Your task to perform on an android device: Go to location settings Image 0: 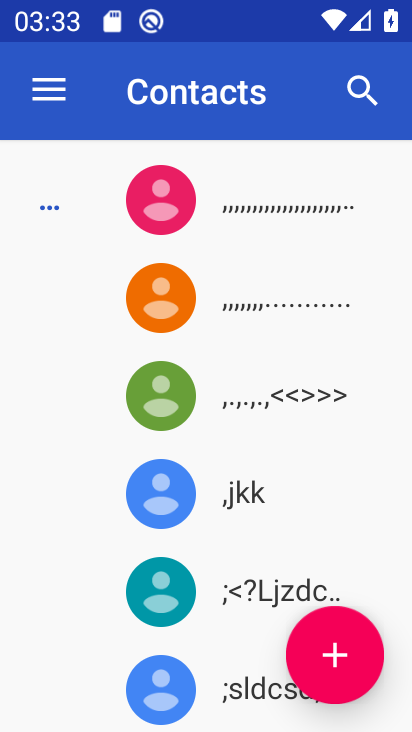
Step 0: press home button
Your task to perform on an android device: Go to location settings Image 1: 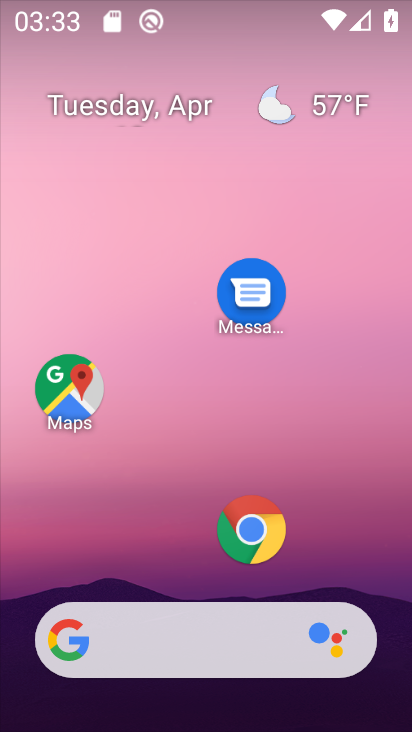
Step 1: drag from (182, 514) to (194, 78)
Your task to perform on an android device: Go to location settings Image 2: 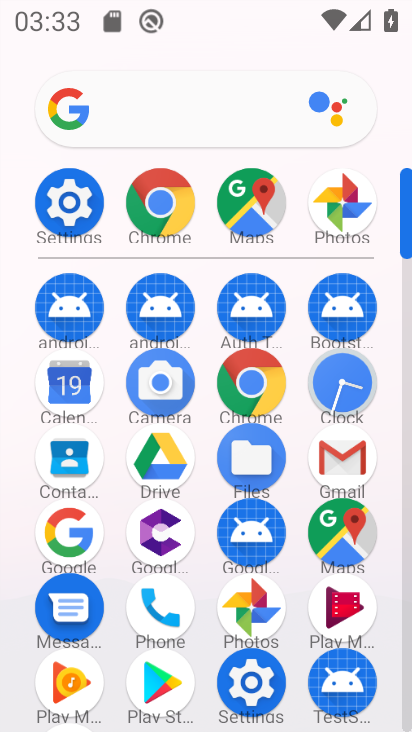
Step 2: click (72, 206)
Your task to perform on an android device: Go to location settings Image 3: 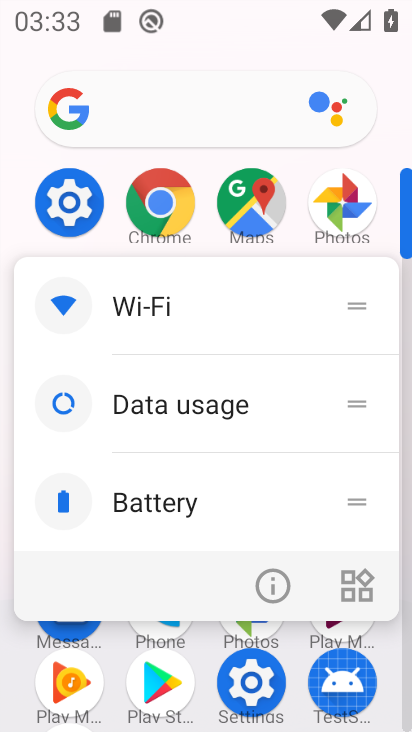
Step 3: click (72, 206)
Your task to perform on an android device: Go to location settings Image 4: 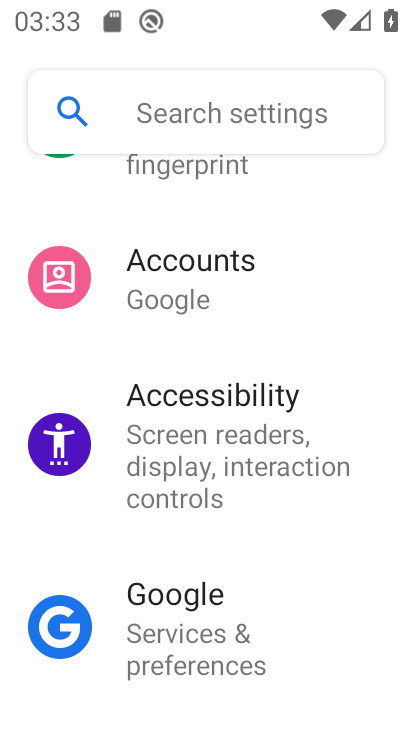
Step 4: drag from (292, 569) to (260, 84)
Your task to perform on an android device: Go to location settings Image 5: 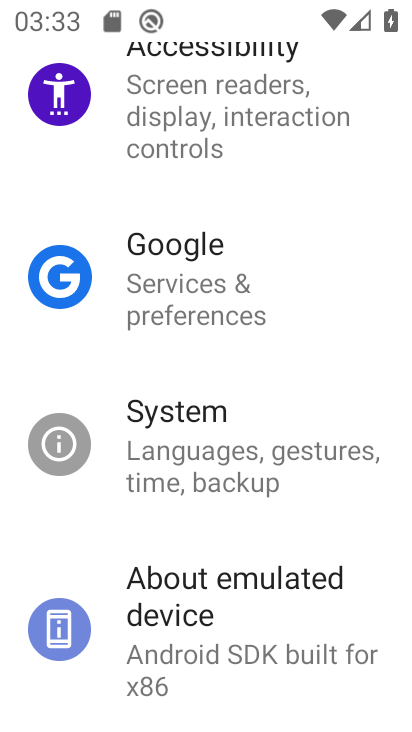
Step 5: drag from (234, 249) to (227, 584)
Your task to perform on an android device: Go to location settings Image 6: 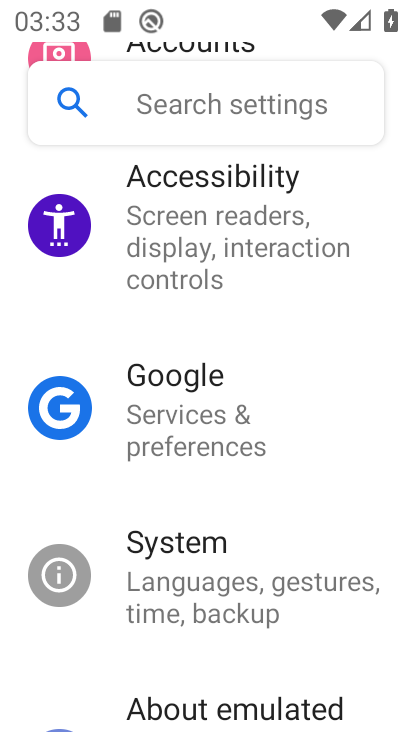
Step 6: drag from (179, 164) to (194, 582)
Your task to perform on an android device: Go to location settings Image 7: 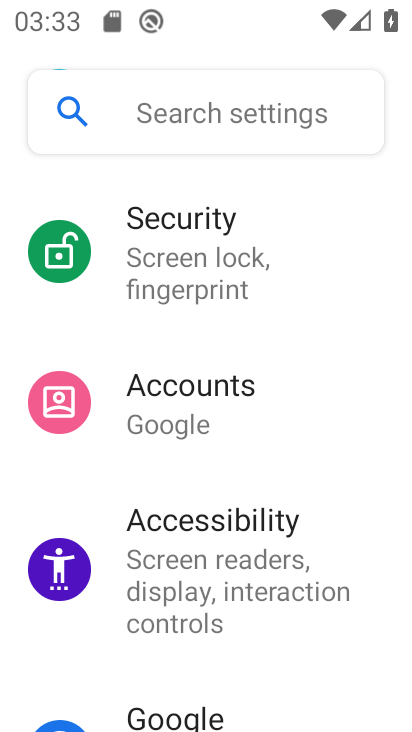
Step 7: drag from (169, 181) to (183, 384)
Your task to perform on an android device: Go to location settings Image 8: 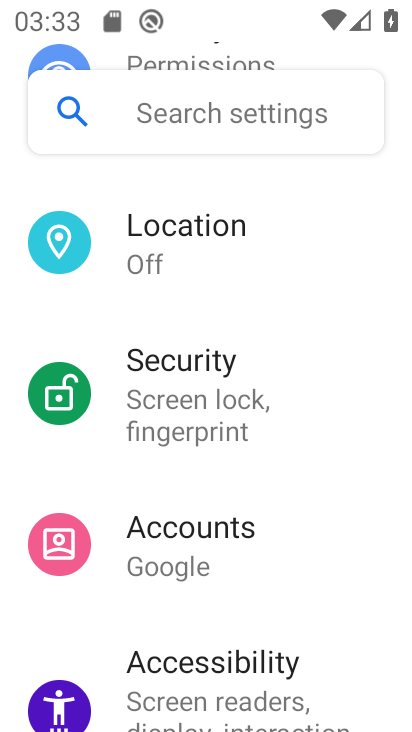
Step 8: click (169, 256)
Your task to perform on an android device: Go to location settings Image 9: 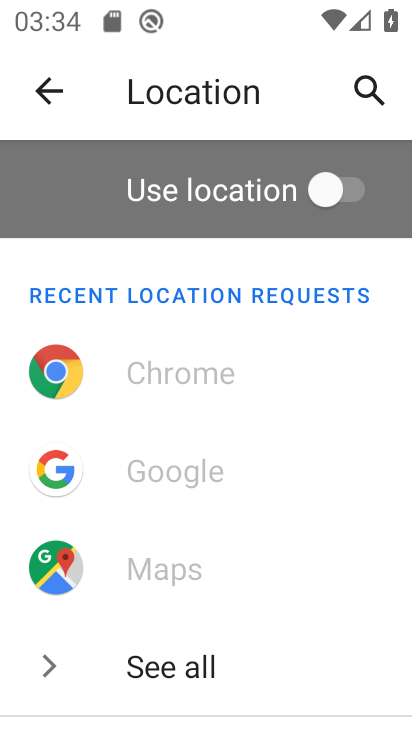
Step 9: task complete